Your task to perform on an android device: toggle wifi Image 0: 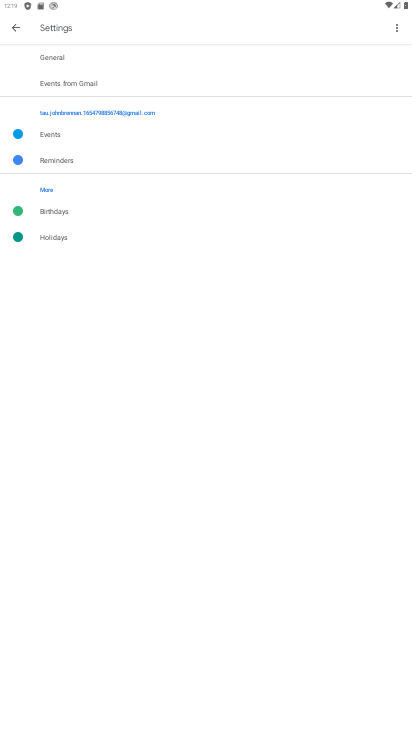
Step 0: drag from (171, 6) to (228, 456)
Your task to perform on an android device: toggle wifi Image 1: 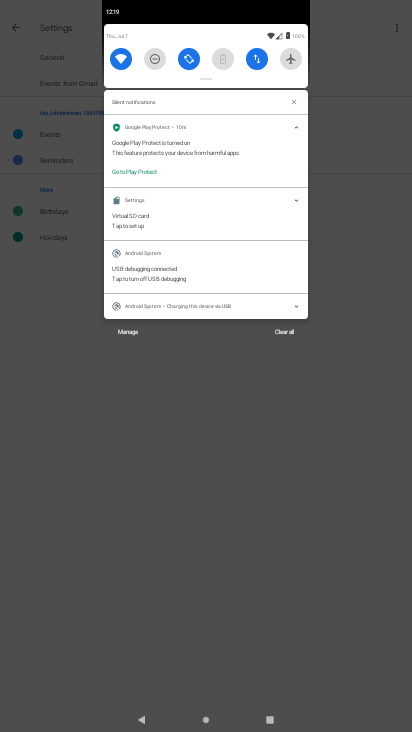
Step 1: click (124, 67)
Your task to perform on an android device: toggle wifi Image 2: 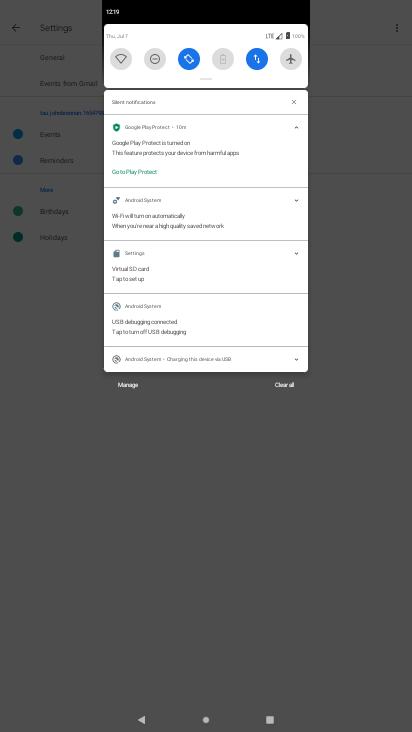
Step 2: click (120, 56)
Your task to perform on an android device: toggle wifi Image 3: 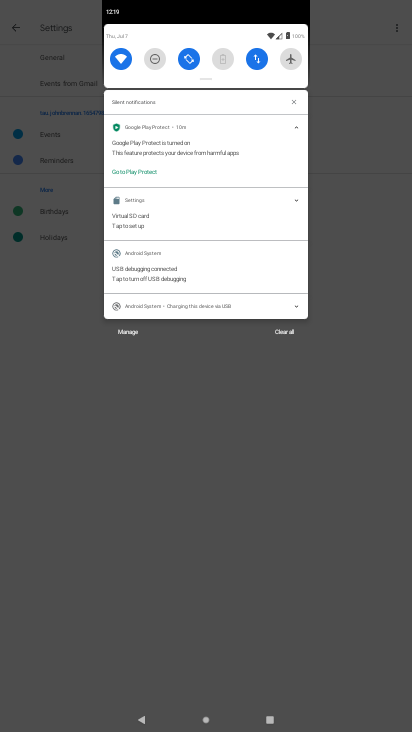
Step 3: click (120, 61)
Your task to perform on an android device: toggle wifi Image 4: 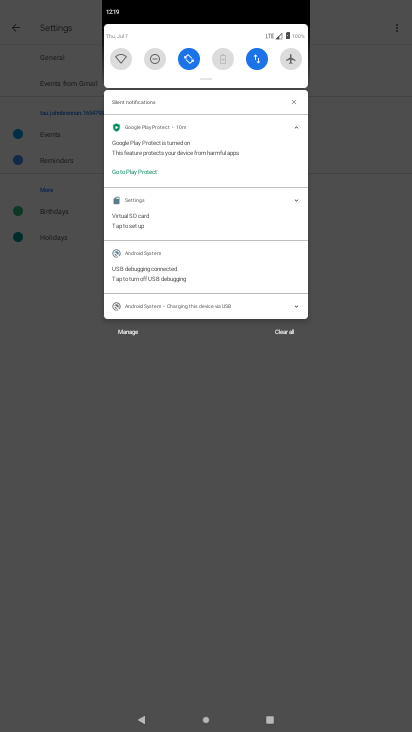
Step 4: task complete